Your task to perform on an android device: Open Google Maps and go to "Timeline" Image 0: 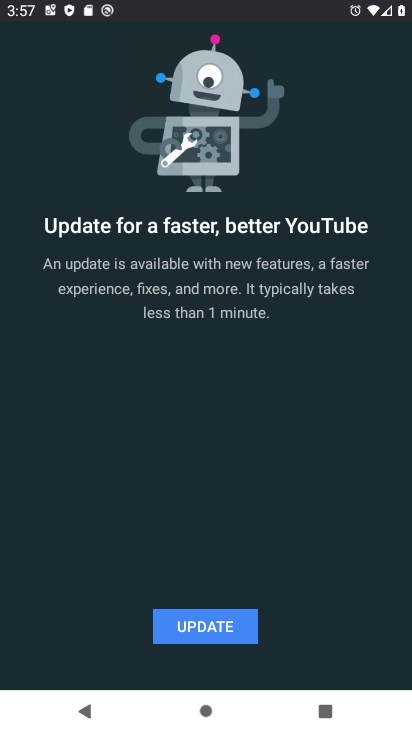
Step 0: press home button
Your task to perform on an android device: Open Google Maps and go to "Timeline" Image 1: 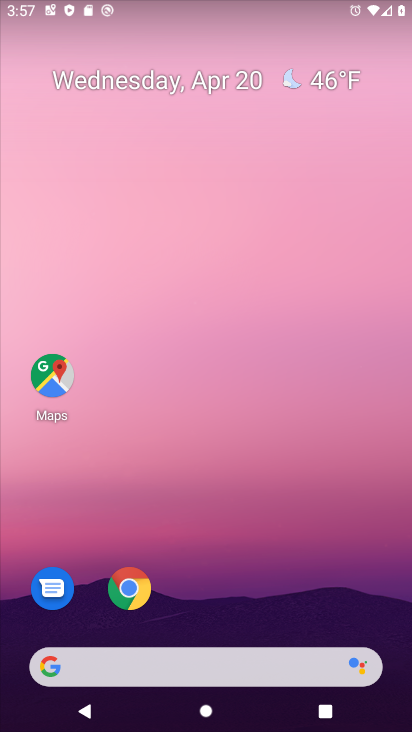
Step 1: click (62, 368)
Your task to perform on an android device: Open Google Maps and go to "Timeline" Image 2: 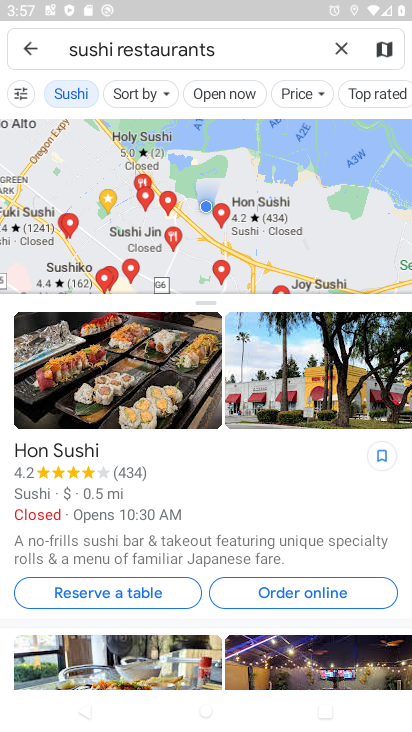
Step 2: click (23, 48)
Your task to perform on an android device: Open Google Maps and go to "Timeline" Image 3: 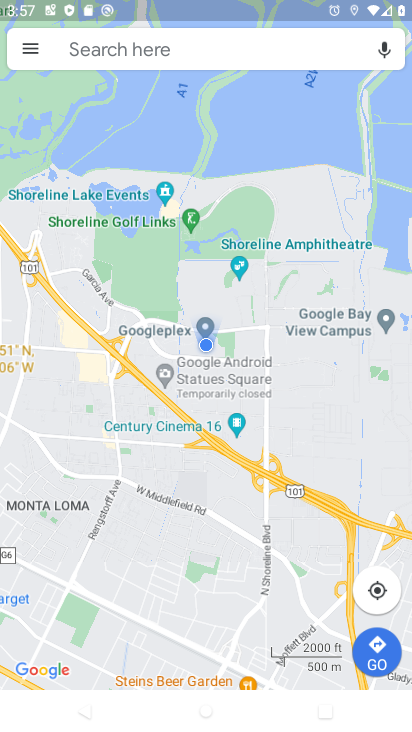
Step 3: click (23, 48)
Your task to perform on an android device: Open Google Maps and go to "Timeline" Image 4: 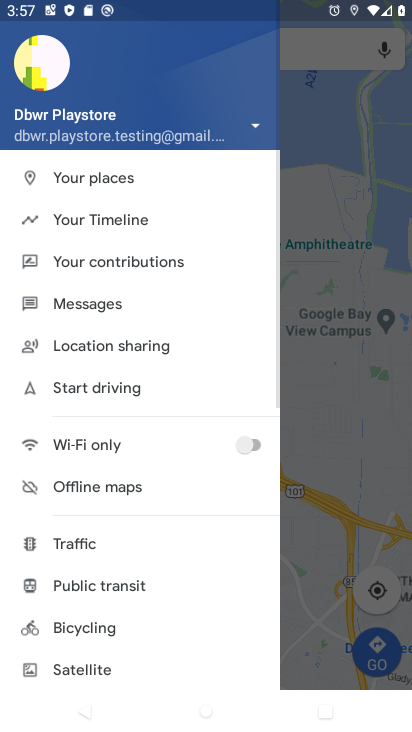
Step 4: click (115, 217)
Your task to perform on an android device: Open Google Maps and go to "Timeline" Image 5: 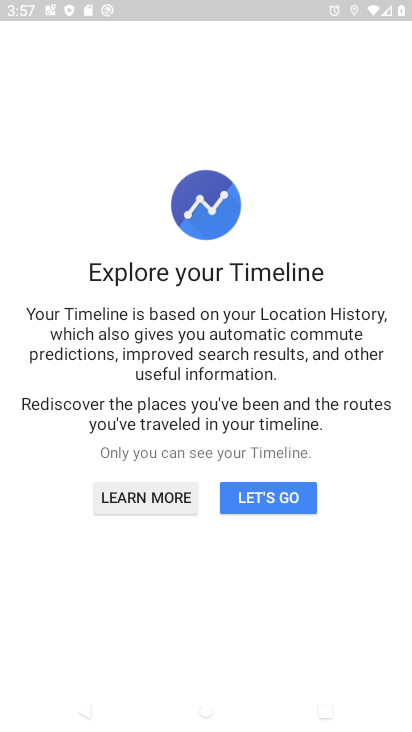
Step 5: click (268, 496)
Your task to perform on an android device: Open Google Maps and go to "Timeline" Image 6: 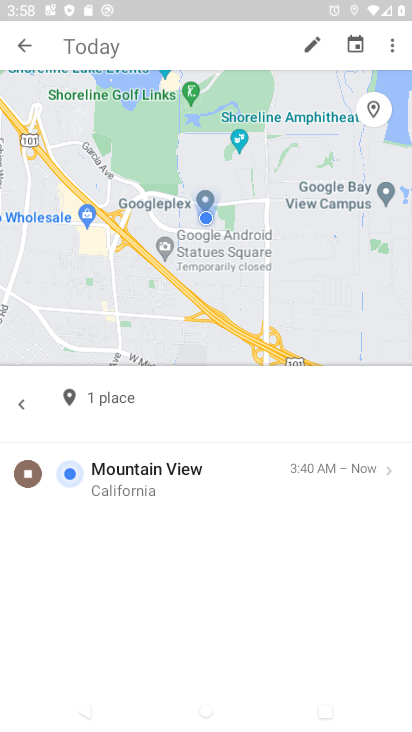
Step 6: task complete